Your task to perform on an android device: turn on wifi Image 0: 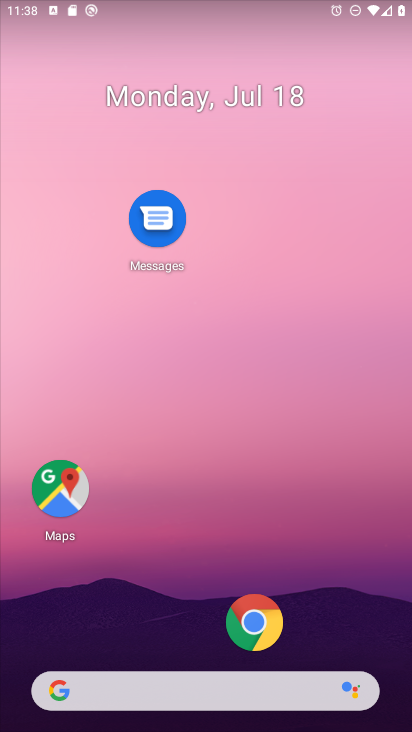
Step 0: press home button
Your task to perform on an android device: turn on wifi Image 1: 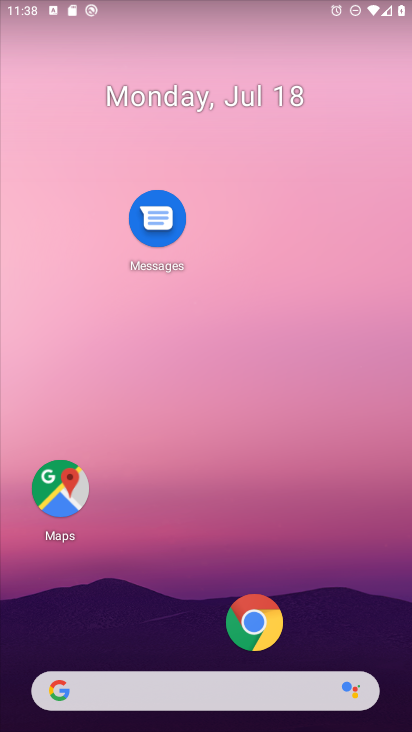
Step 1: drag from (216, 675) to (297, 159)
Your task to perform on an android device: turn on wifi Image 2: 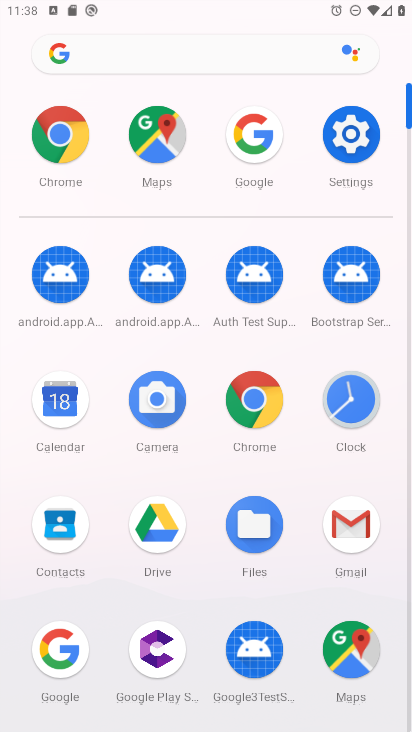
Step 2: click (350, 144)
Your task to perform on an android device: turn on wifi Image 3: 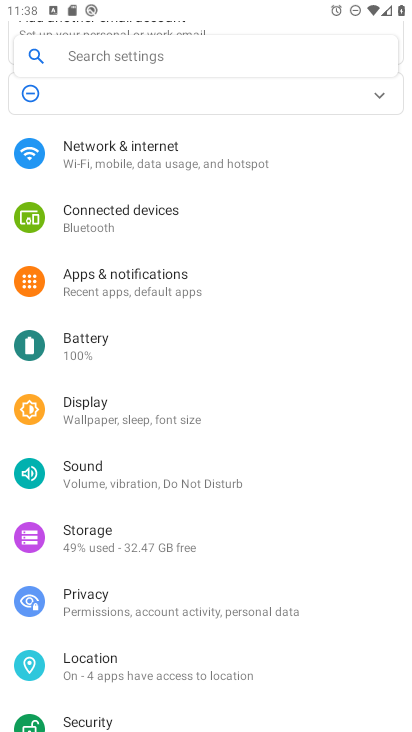
Step 3: click (125, 159)
Your task to perform on an android device: turn on wifi Image 4: 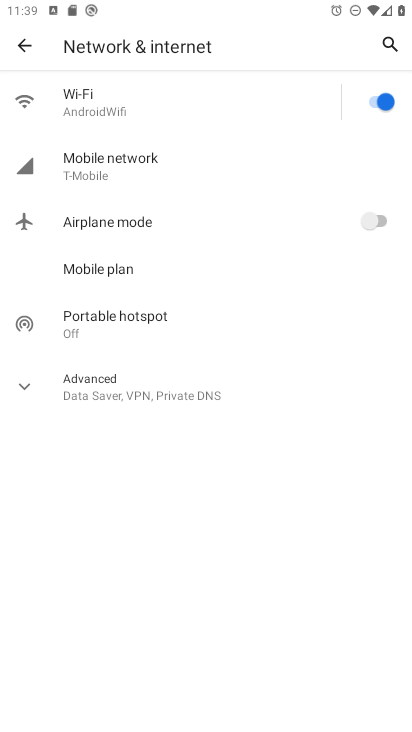
Step 4: task complete